Your task to perform on an android device: What's the weather going to be this weekend? Image 0: 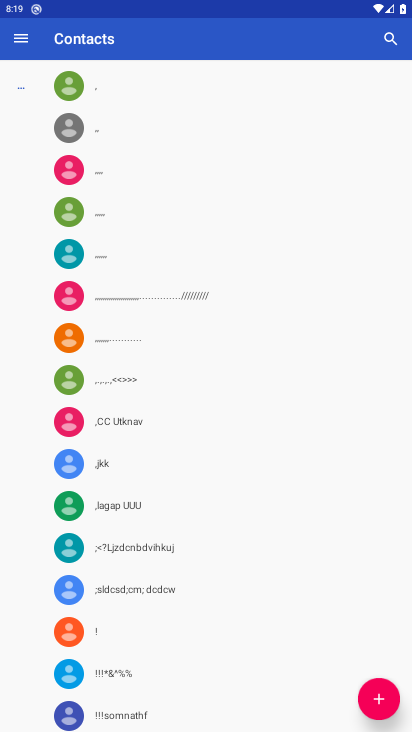
Step 0: press home button
Your task to perform on an android device: What's the weather going to be this weekend? Image 1: 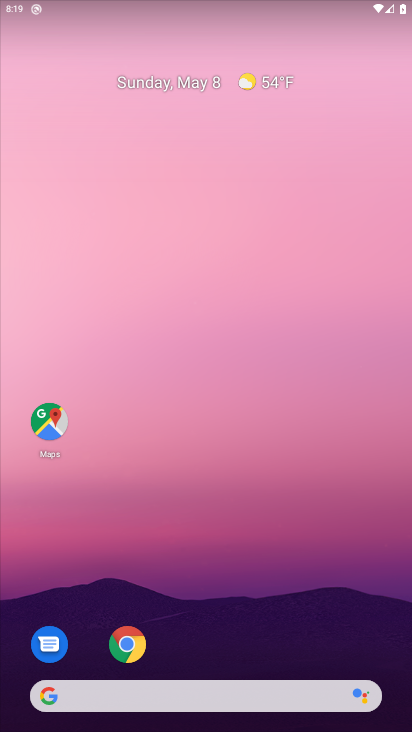
Step 1: drag from (197, 646) to (211, 401)
Your task to perform on an android device: What's the weather going to be this weekend? Image 2: 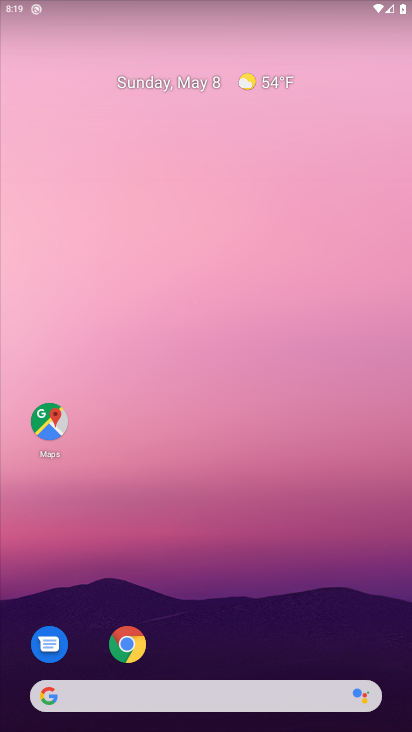
Step 2: drag from (173, 689) to (198, 239)
Your task to perform on an android device: What's the weather going to be this weekend? Image 3: 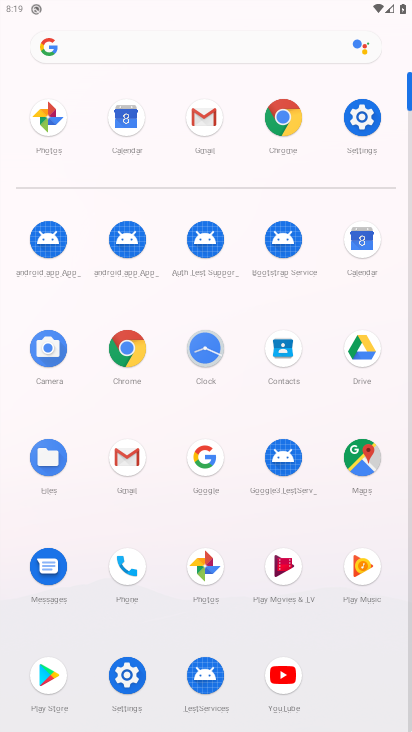
Step 3: click (196, 453)
Your task to perform on an android device: What's the weather going to be this weekend? Image 4: 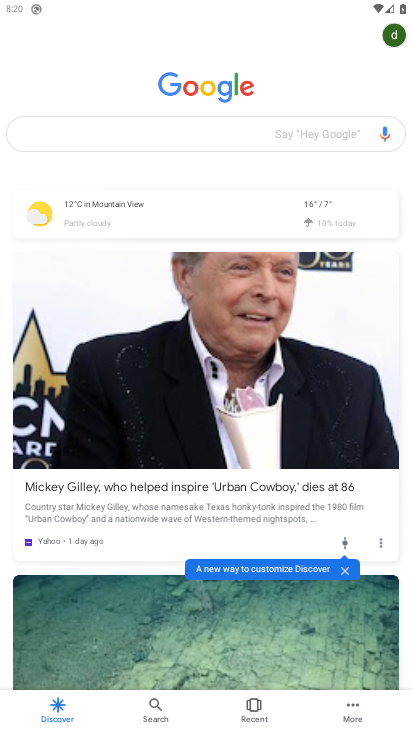
Step 4: click (123, 135)
Your task to perform on an android device: What's the weather going to be this weekend? Image 5: 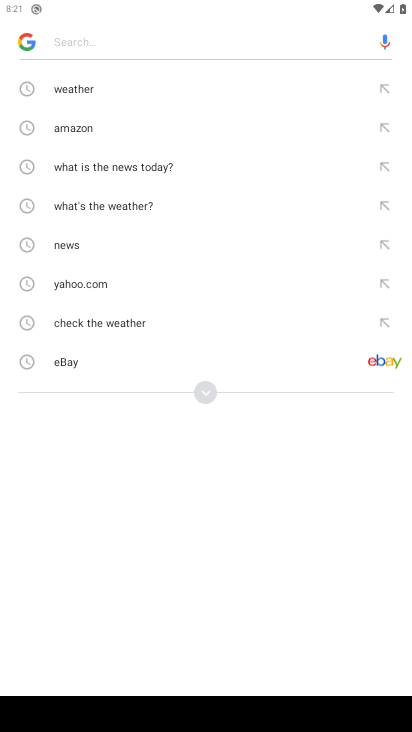
Step 5: type "whats the weather going to be this weekend"
Your task to perform on an android device: What's the weather going to be this weekend? Image 6: 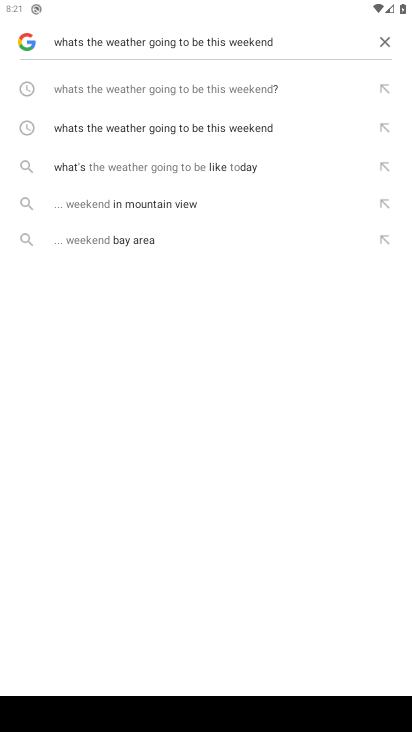
Step 6: click (205, 87)
Your task to perform on an android device: What's the weather going to be this weekend? Image 7: 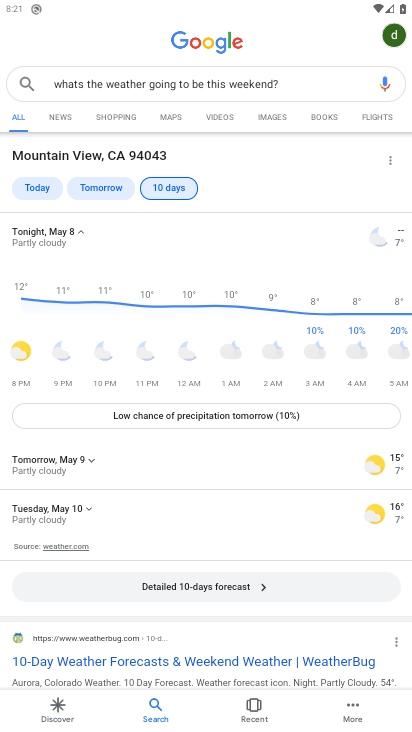
Step 7: click (154, 590)
Your task to perform on an android device: What's the weather going to be this weekend? Image 8: 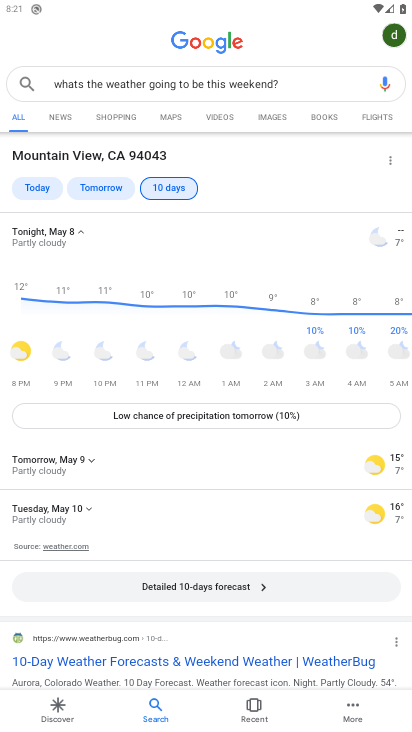
Step 8: click (154, 590)
Your task to perform on an android device: What's the weather going to be this weekend? Image 9: 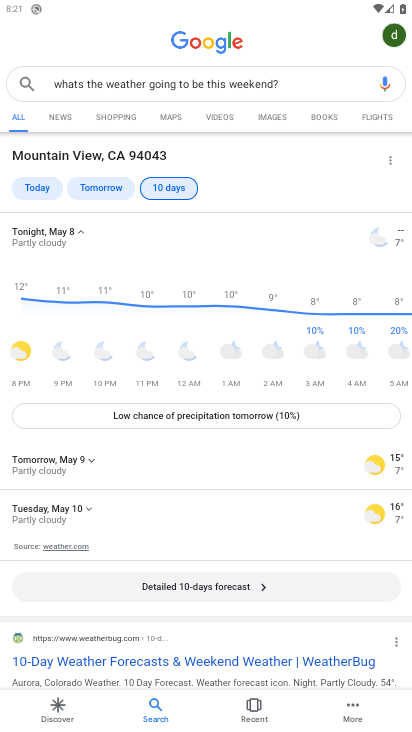
Step 9: click (194, 587)
Your task to perform on an android device: What's the weather going to be this weekend? Image 10: 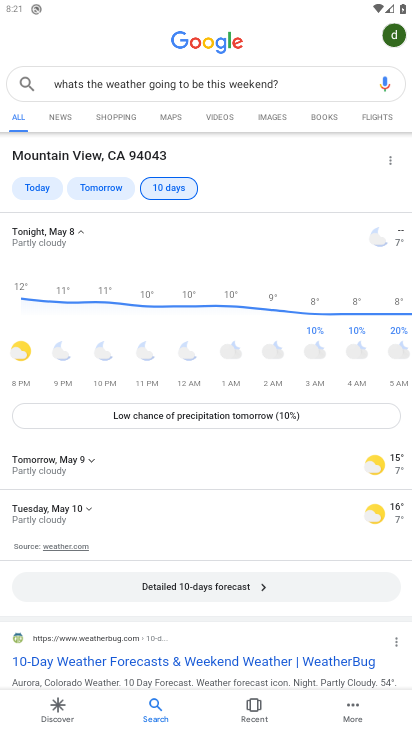
Step 10: click (194, 587)
Your task to perform on an android device: What's the weather going to be this weekend? Image 11: 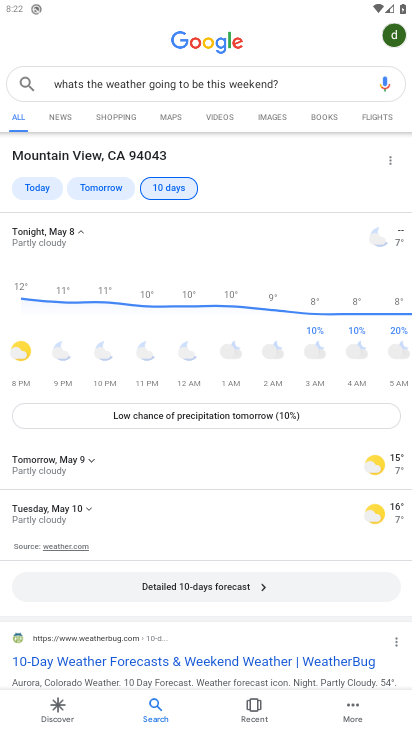
Step 11: task complete